Your task to perform on an android device: see sites visited before in the chrome app Image 0: 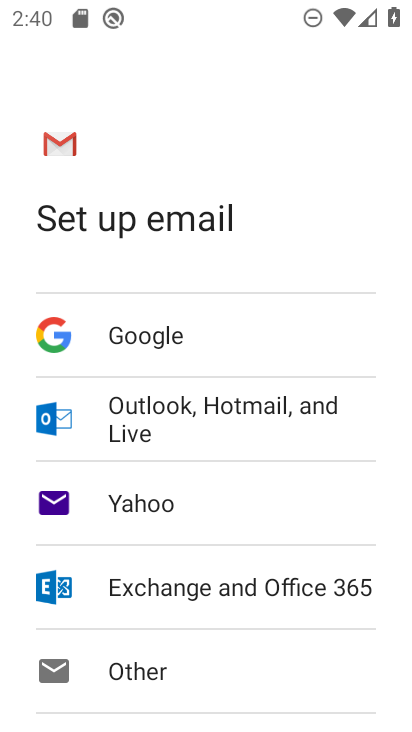
Step 0: press home button
Your task to perform on an android device: see sites visited before in the chrome app Image 1: 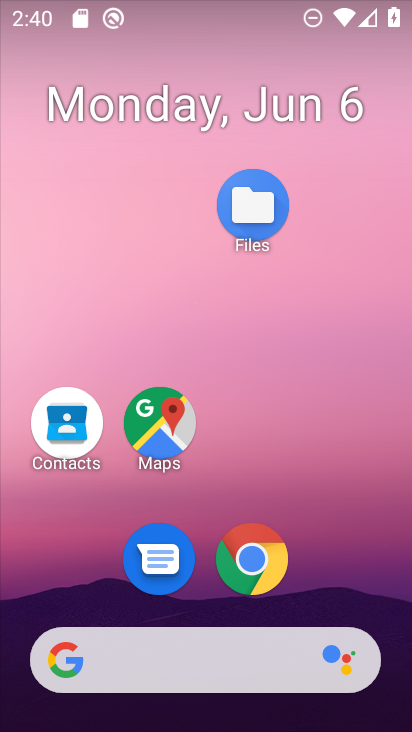
Step 1: drag from (235, 688) to (272, 201)
Your task to perform on an android device: see sites visited before in the chrome app Image 2: 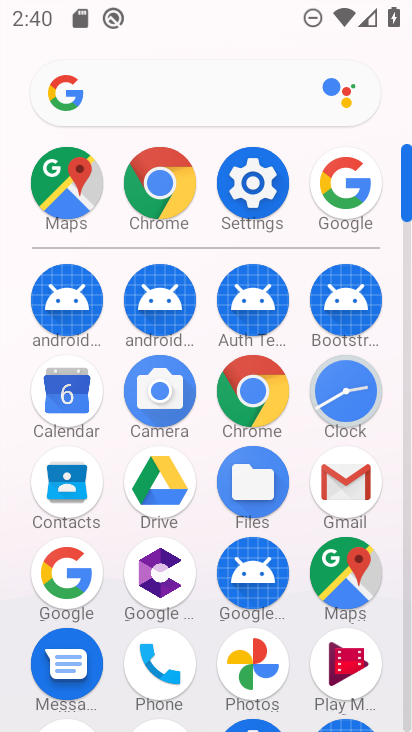
Step 2: click (269, 426)
Your task to perform on an android device: see sites visited before in the chrome app Image 3: 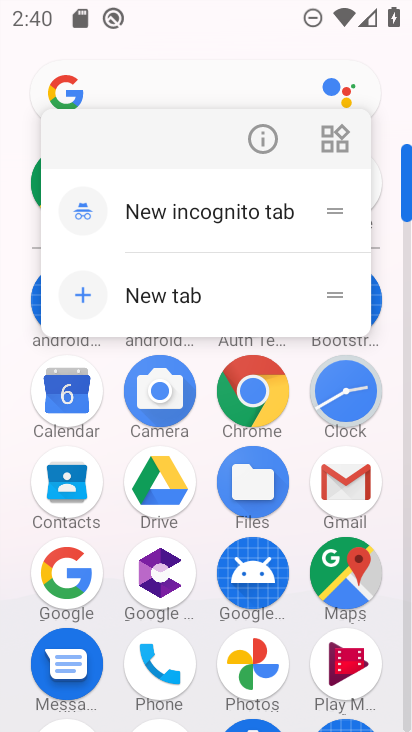
Step 3: click (273, 406)
Your task to perform on an android device: see sites visited before in the chrome app Image 4: 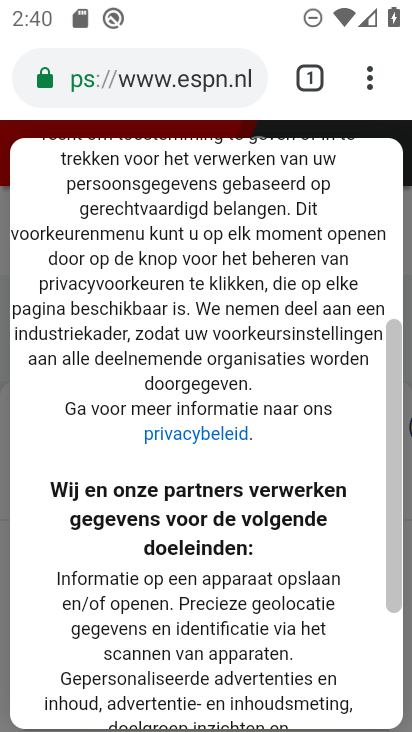
Step 4: click (368, 77)
Your task to perform on an android device: see sites visited before in the chrome app Image 5: 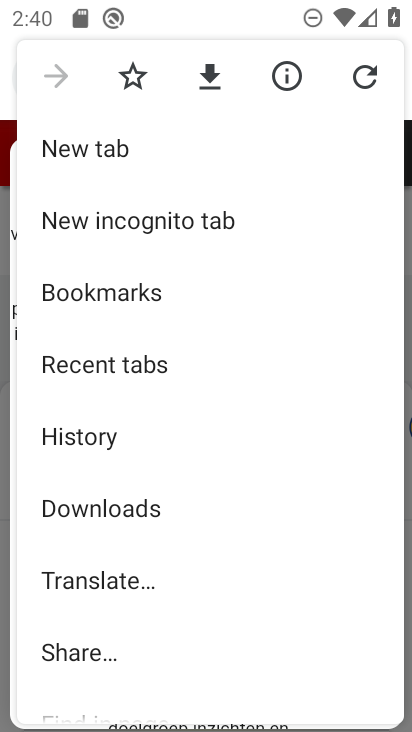
Step 5: click (94, 438)
Your task to perform on an android device: see sites visited before in the chrome app Image 6: 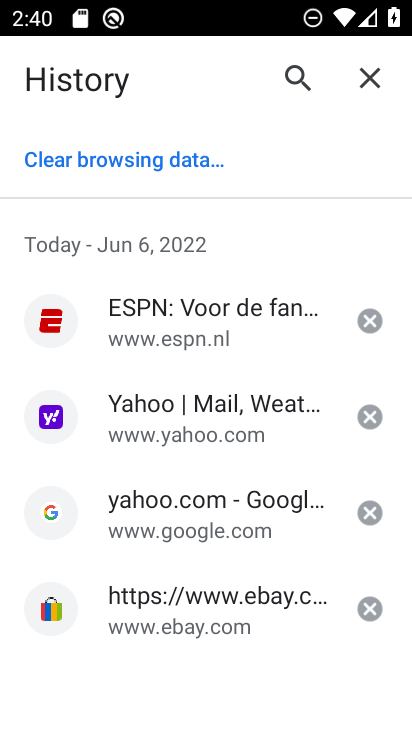
Step 6: task complete